Your task to perform on an android device: open app "DoorDash - Dasher" (install if not already installed), go to login, and select forgot password Image 0: 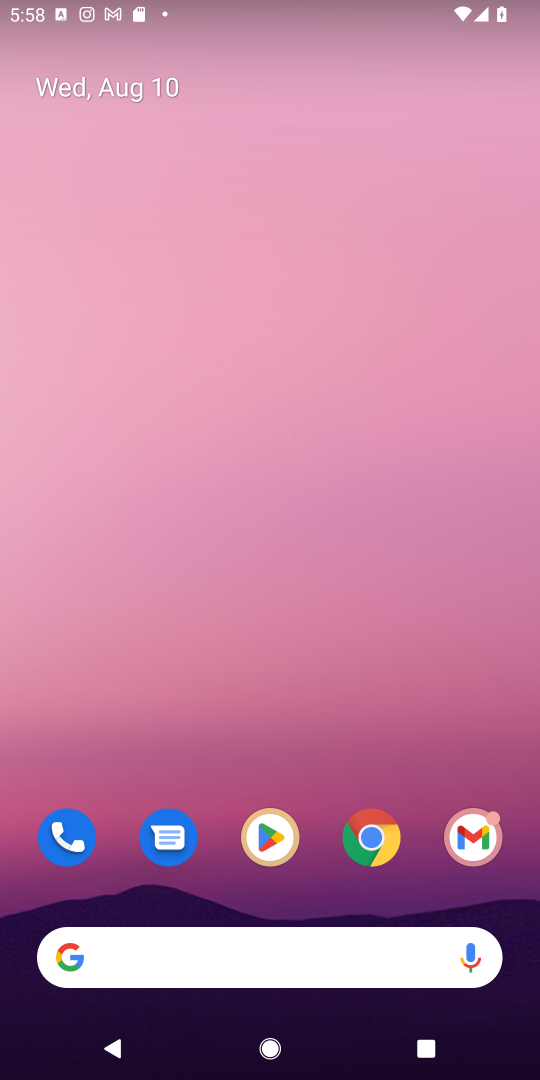
Step 0: click (268, 835)
Your task to perform on an android device: open app "DoorDash - Dasher" (install if not already installed), go to login, and select forgot password Image 1: 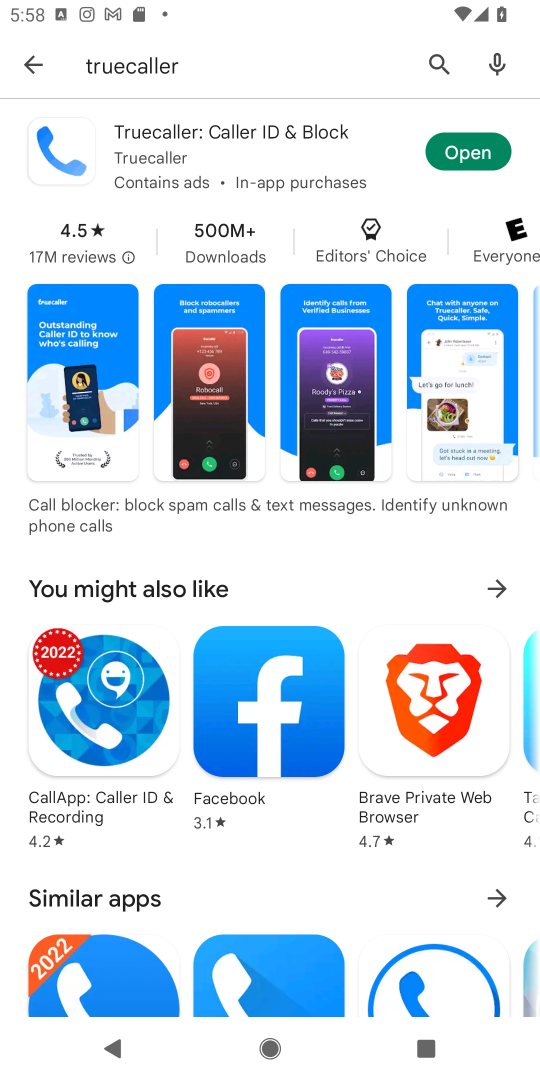
Step 1: click (425, 54)
Your task to perform on an android device: open app "DoorDash - Dasher" (install if not already installed), go to login, and select forgot password Image 2: 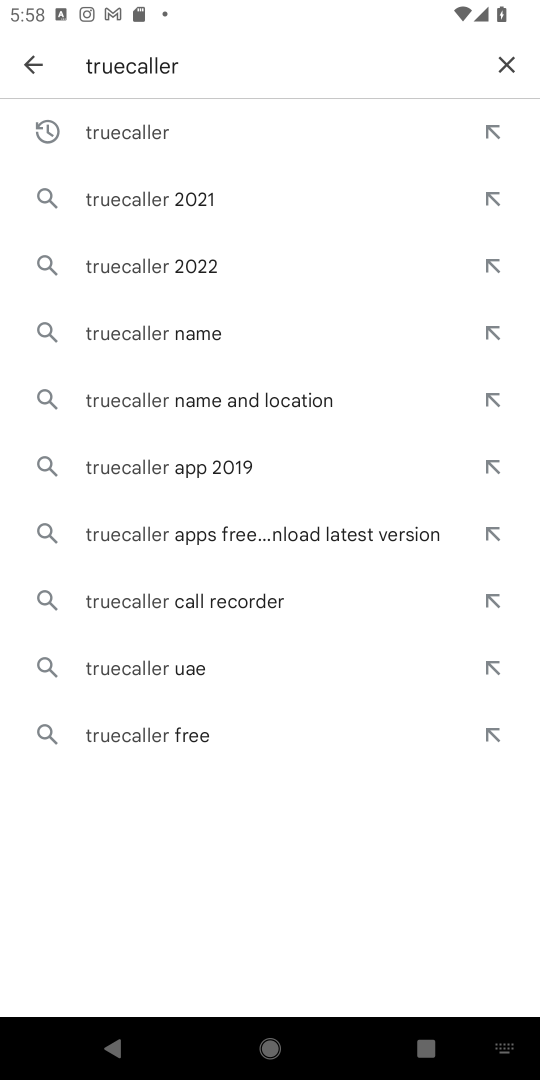
Step 2: click (513, 57)
Your task to perform on an android device: open app "DoorDash - Dasher" (install if not already installed), go to login, and select forgot password Image 3: 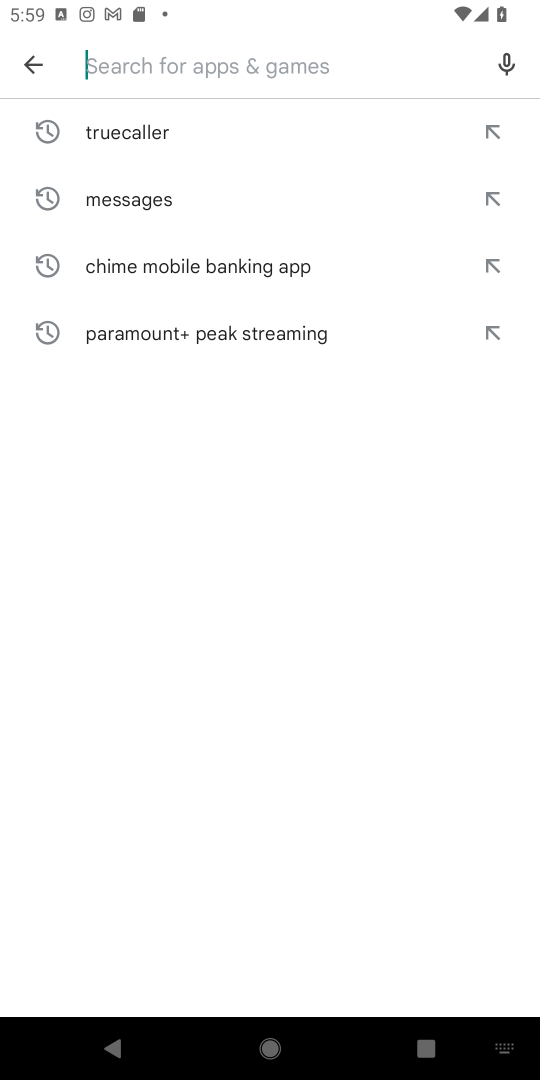
Step 3: type "DoorDash - Dasher"
Your task to perform on an android device: open app "DoorDash - Dasher" (install if not already installed), go to login, and select forgot password Image 4: 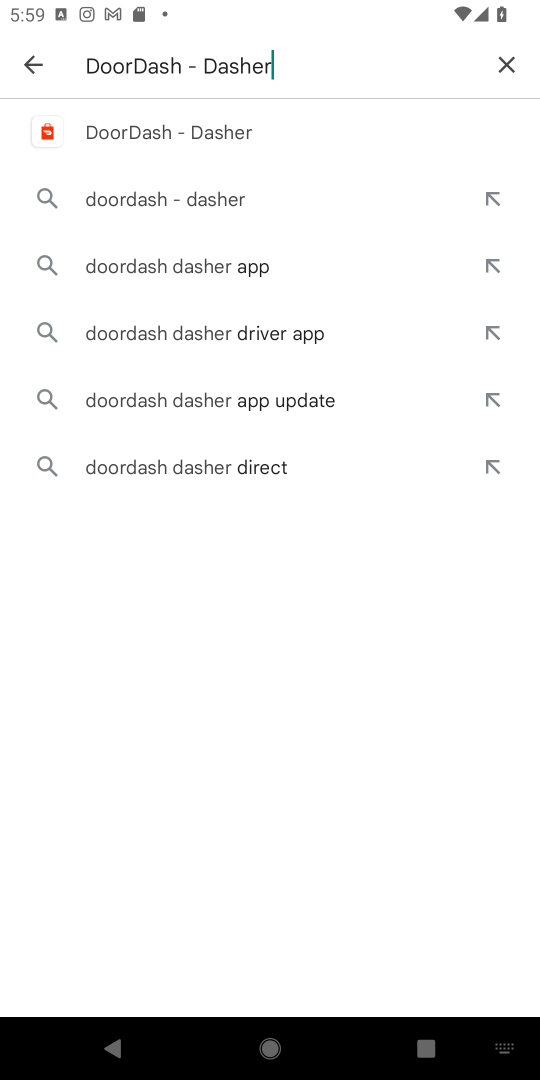
Step 4: click (211, 136)
Your task to perform on an android device: open app "DoorDash - Dasher" (install if not already installed), go to login, and select forgot password Image 5: 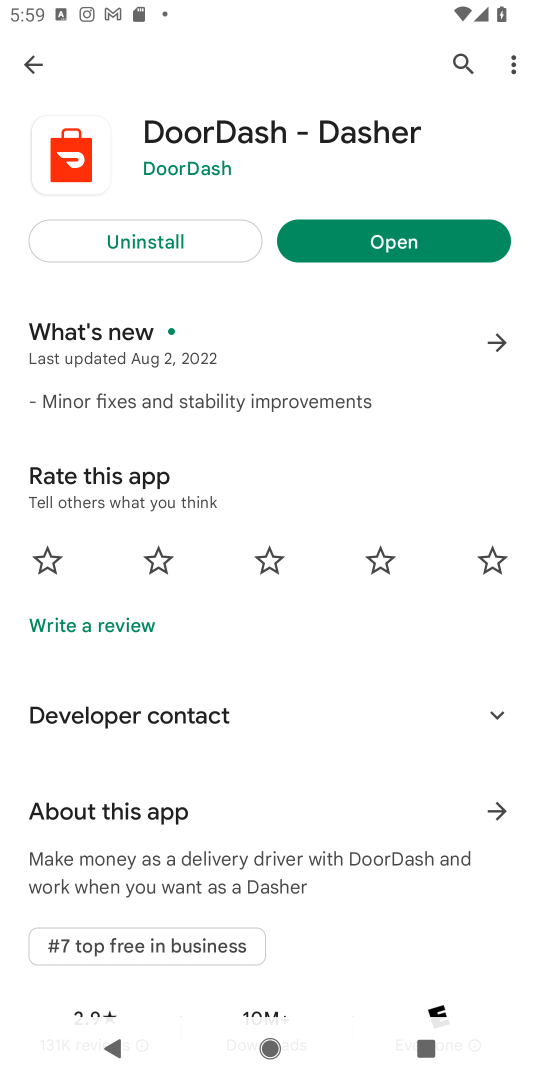
Step 5: click (447, 228)
Your task to perform on an android device: open app "DoorDash - Dasher" (install if not already installed), go to login, and select forgot password Image 6: 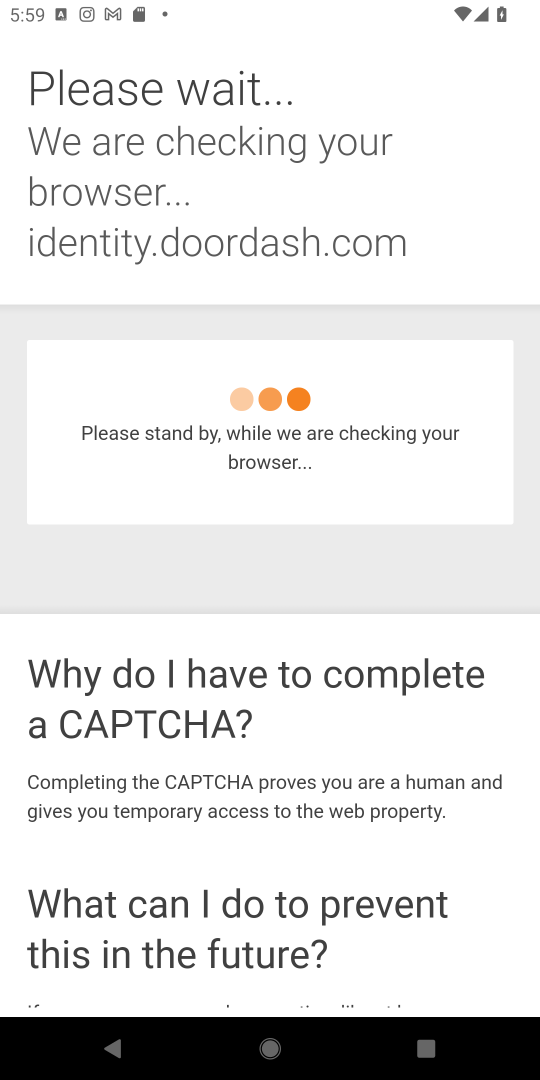
Step 6: drag from (334, 831) to (502, 18)
Your task to perform on an android device: open app "DoorDash - Dasher" (install if not already installed), go to login, and select forgot password Image 7: 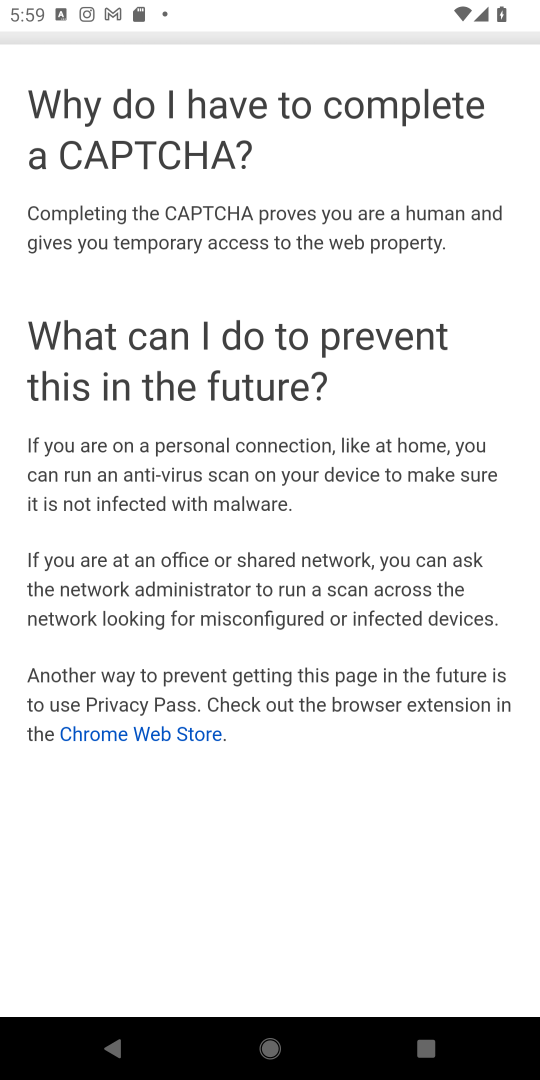
Step 7: drag from (446, 172) to (368, 890)
Your task to perform on an android device: open app "DoorDash - Dasher" (install if not already installed), go to login, and select forgot password Image 8: 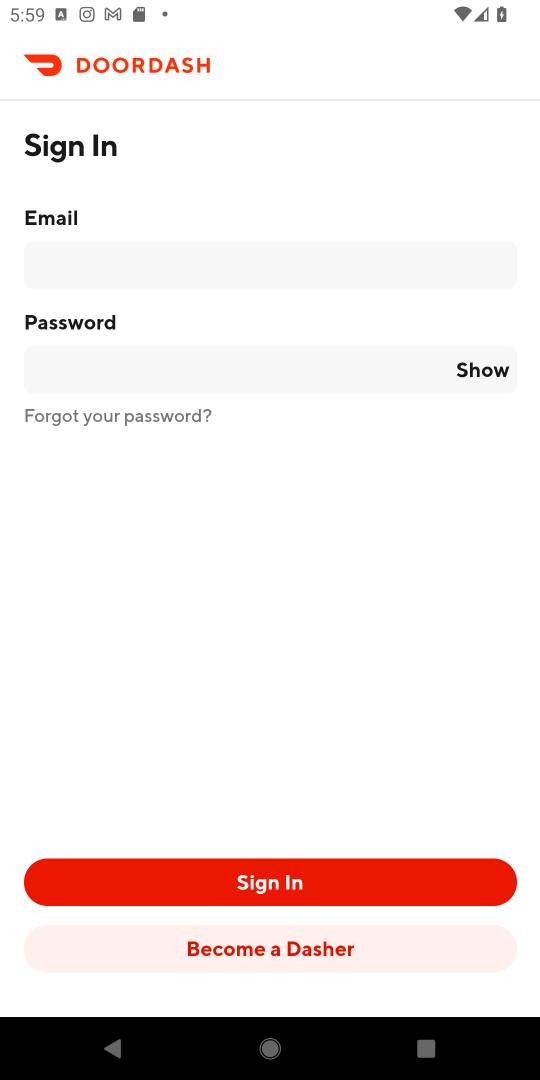
Step 8: click (134, 413)
Your task to perform on an android device: open app "DoorDash - Dasher" (install if not already installed), go to login, and select forgot password Image 9: 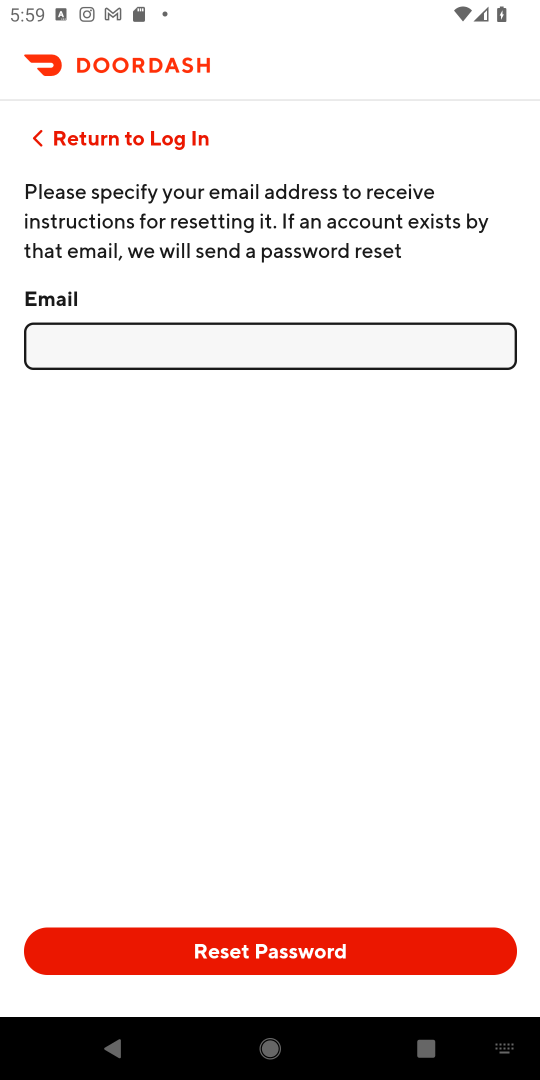
Step 9: task complete